Your task to perform on an android device: Search for sushi restaurants on Maps Image 0: 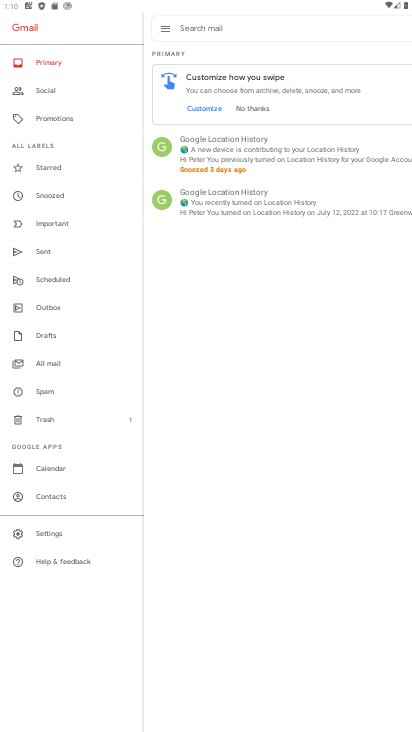
Step 0: press home button
Your task to perform on an android device: Search for sushi restaurants on Maps Image 1: 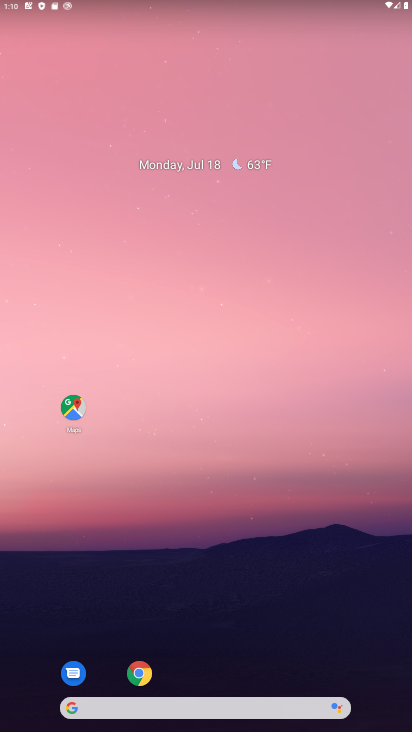
Step 1: click (71, 418)
Your task to perform on an android device: Search for sushi restaurants on Maps Image 2: 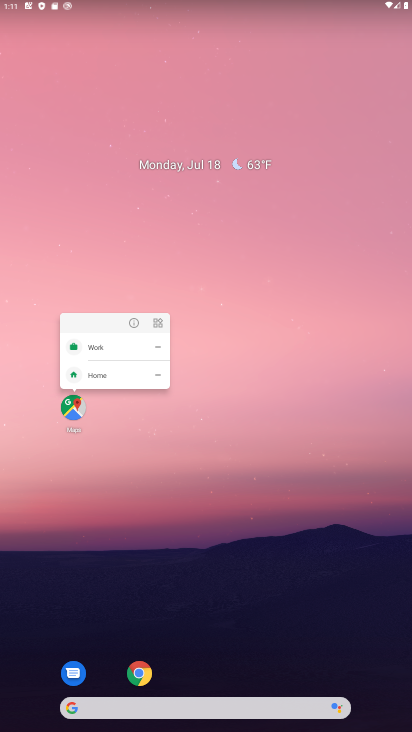
Step 2: click (68, 406)
Your task to perform on an android device: Search for sushi restaurants on Maps Image 3: 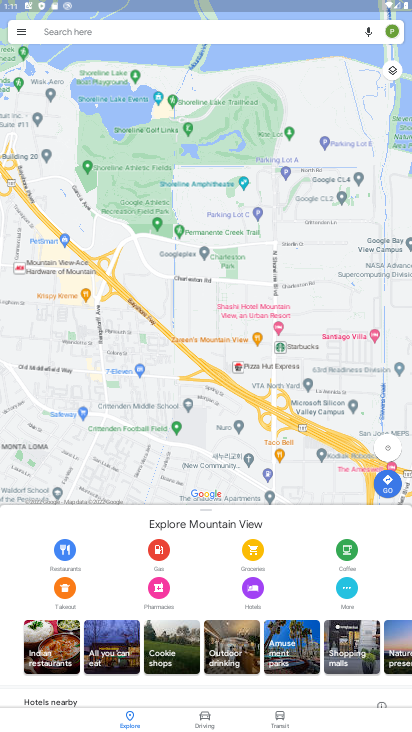
Step 3: click (207, 32)
Your task to perform on an android device: Search for sushi restaurants on Maps Image 4: 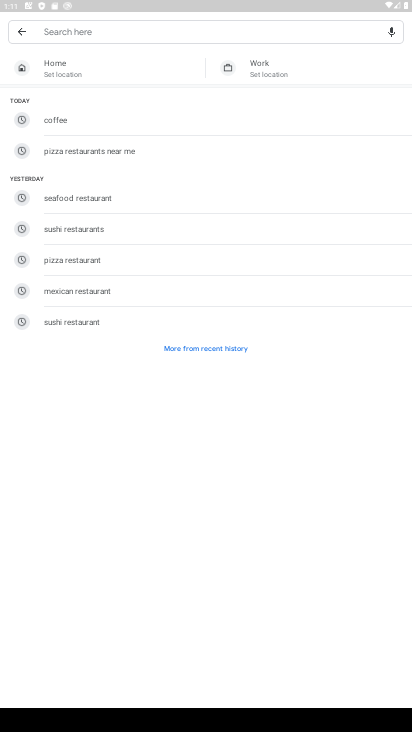
Step 4: click (140, 230)
Your task to perform on an android device: Search for sushi restaurants on Maps Image 5: 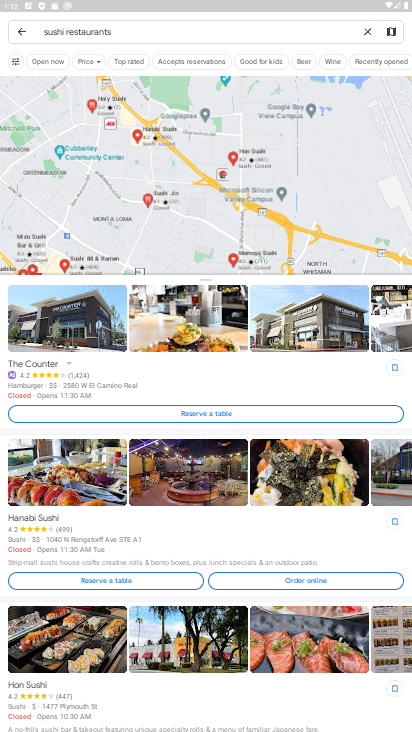
Step 5: task complete